Your task to perform on an android device: change timer sound Image 0: 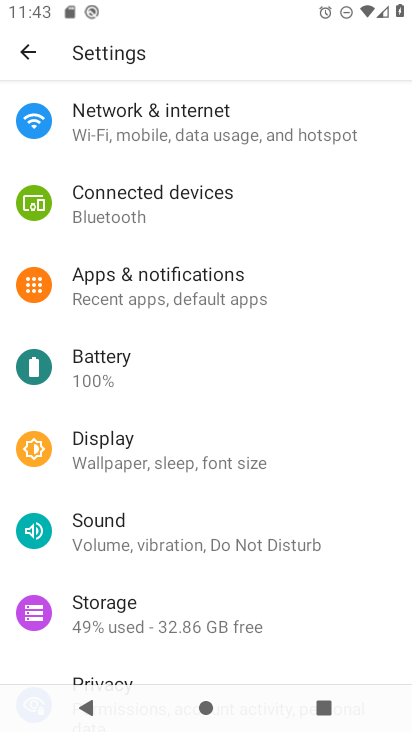
Step 0: press home button
Your task to perform on an android device: change timer sound Image 1: 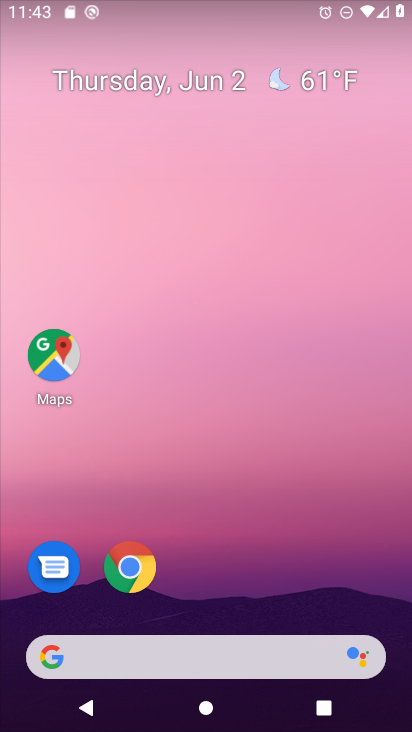
Step 1: drag from (235, 528) to (226, 110)
Your task to perform on an android device: change timer sound Image 2: 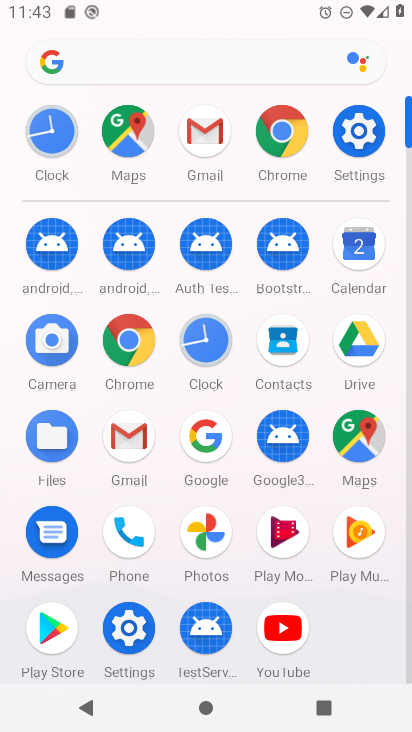
Step 2: click (208, 344)
Your task to perform on an android device: change timer sound Image 3: 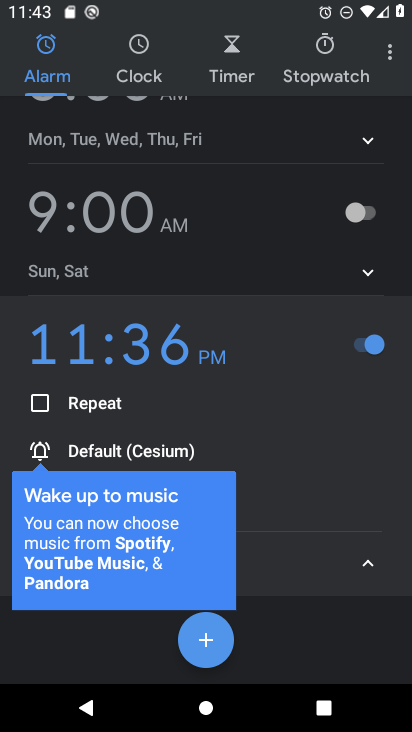
Step 3: click (394, 54)
Your task to perform on an android device: change timer sound Image 4: 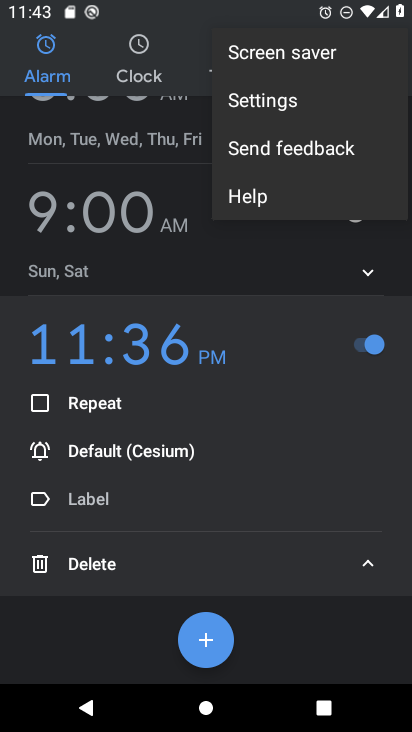
Step 4: click (289, 108)
Your task to perform on an android device: change timer sound Image 5: 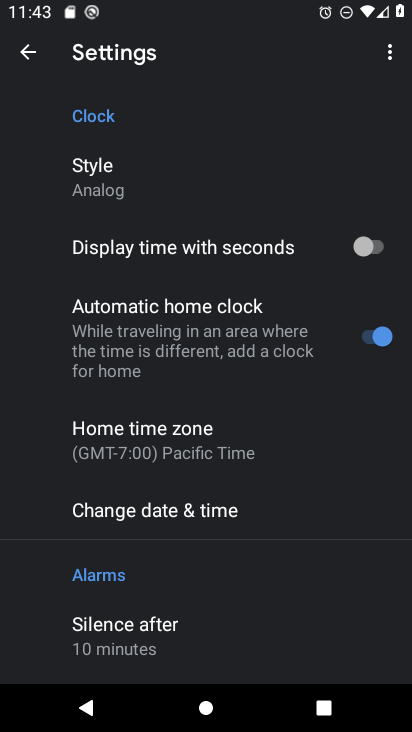
Step 5: drag from (258, 575) to (287, 23)
Your task to perform on an android device: change timer sound Image 6: 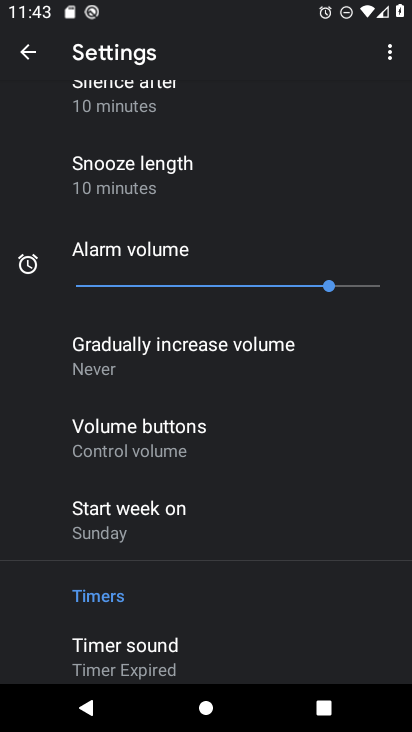
Step 6: click (154, 641)
Your task to perform on an android device: change timer sound Image 7: 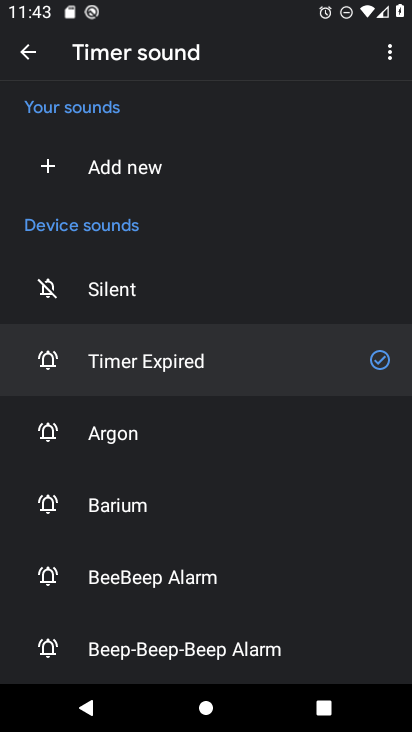
Step 7: click (152, 430)
Your task to perform on an android device: change timer sound Image 8: 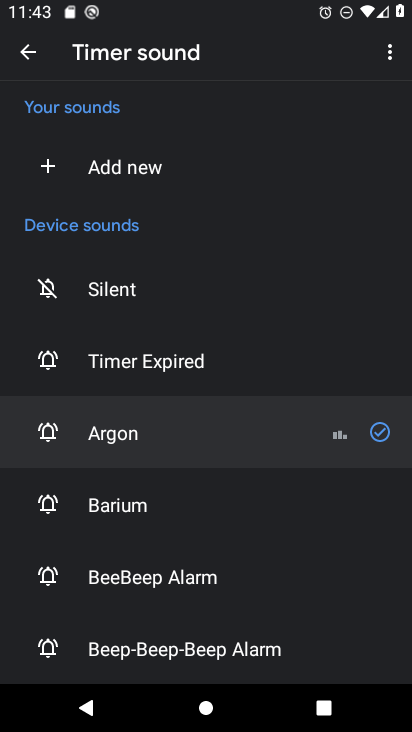
Step 8: task complete